Your task to perform on an android device: turn on the 24-hour format for clock Image 0: 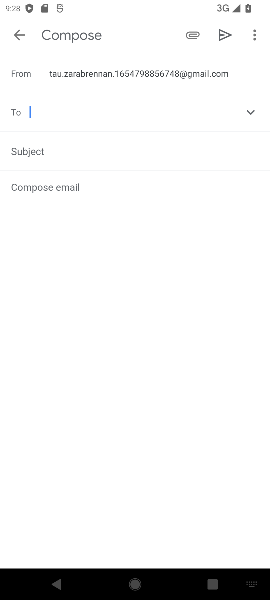
Step 0: press home button
Your task to perform on an android device: turn on the 24-hour format for clock Image 1: 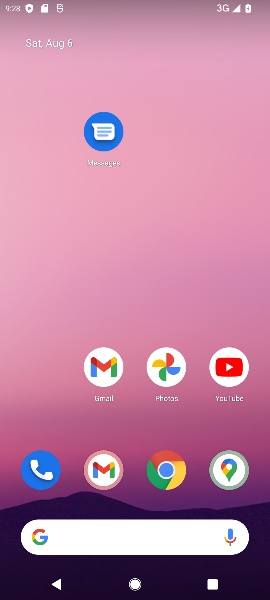
Step 1: drag from (182, 571) to (135, 162)
Your task to perform on an android device: turn on the 24-hour format for clock Image 2: 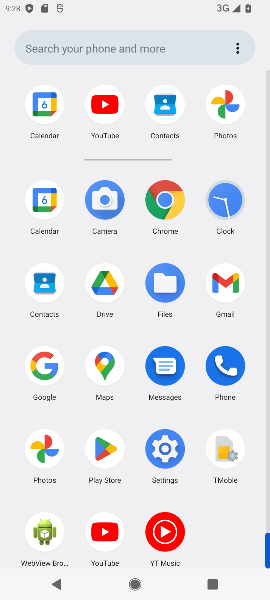
Step 2: click (234, 204)
Your task to perform on an android device: turn on the 24-hour format for clock Image 3: 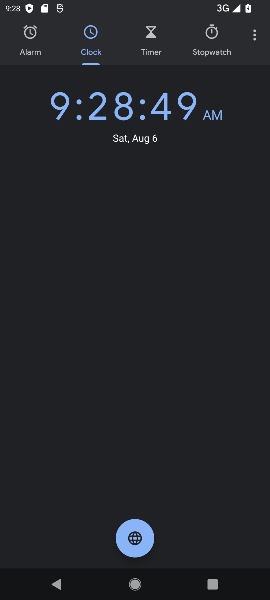
Step 3: click (260, 37)
Your task to perform on an android device: turn on the 24-hour format for clock Image 4: 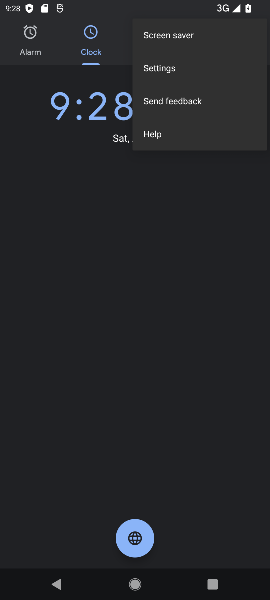
Step 4: click (192, 70)
Your task to perform on an android device: turn on the 24-hour format for clock Image 5: 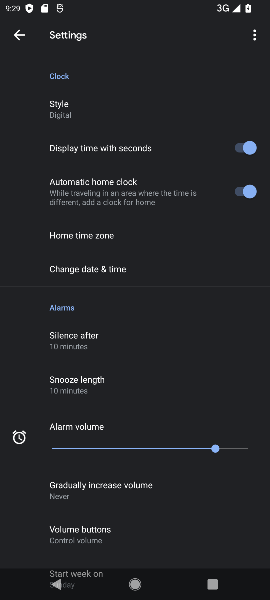
Step 5: click (112, 262)
Your task to perform on an android device: turn on the 24-hour format for clock Image 6: 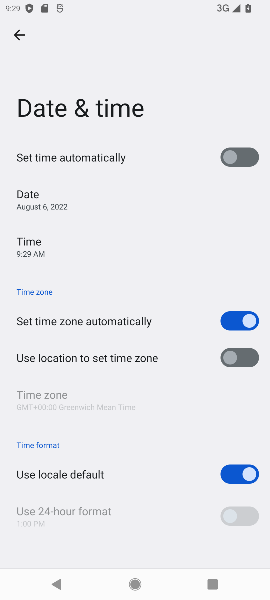
Step 6: task complete